Your task to perform on an android device: turn off notifications settings in the gmail app Image 0: 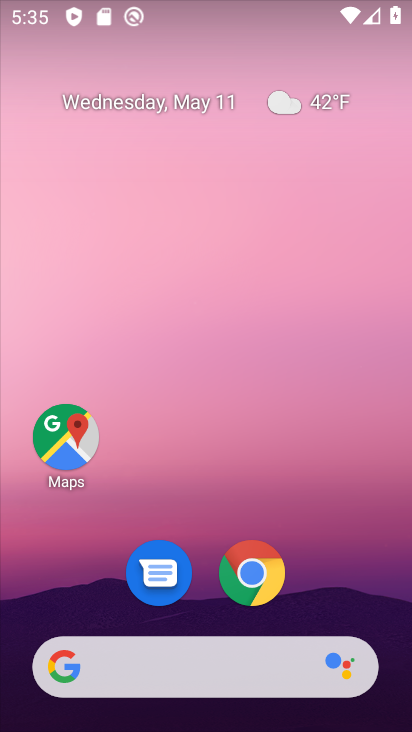
Step 0: drag from (319, 593) to (232, 151)
Your task to perform on an android device: turn off notifications settings in the gmail app Image 1: 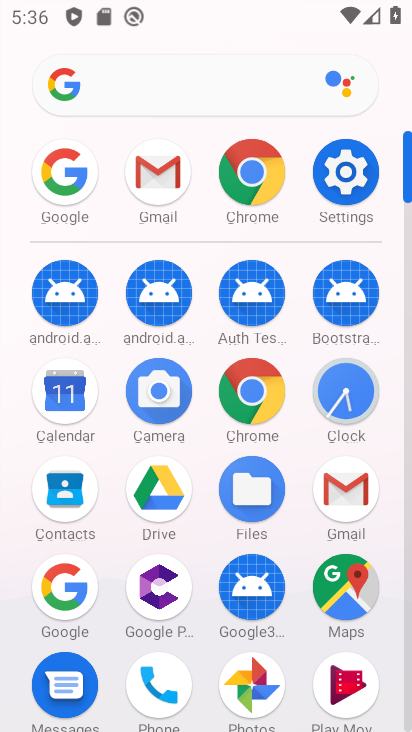
Step 1: click (332, 489)
Your task to perform on an android device: turn off notifications settings in the gmail app Image 2: 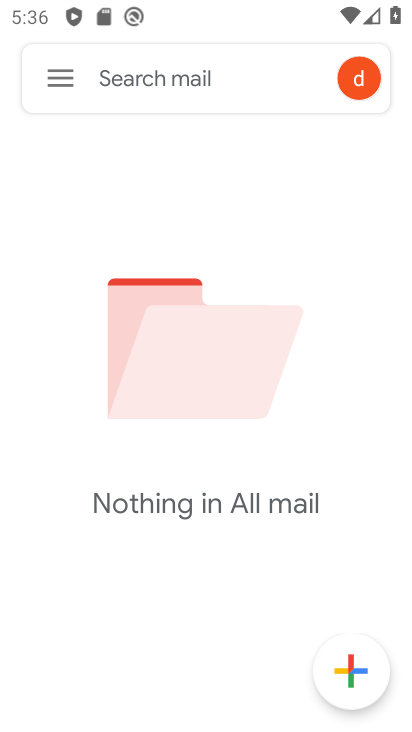
Step 2: click (55, 86)
Your task to perform on an android device: turn off notifications settings in the gmail app Image 3: 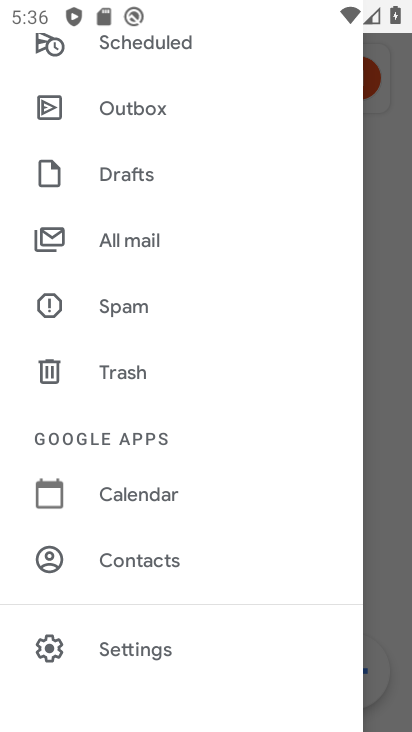
Step 3: click (147, 650)
Your task to perform on an android device: turn off notifications settings in the gmail app Image 4: 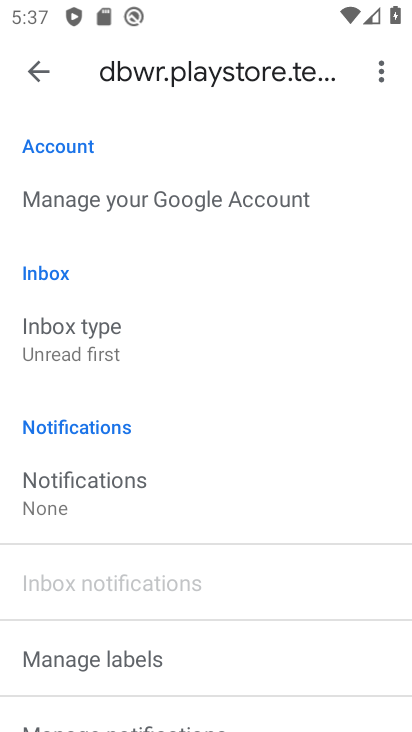
Step 4: drag from (274, 669) to (238, 458)
Your task to perform on an android device: turn off notifications settings in the gmail app Image 5: 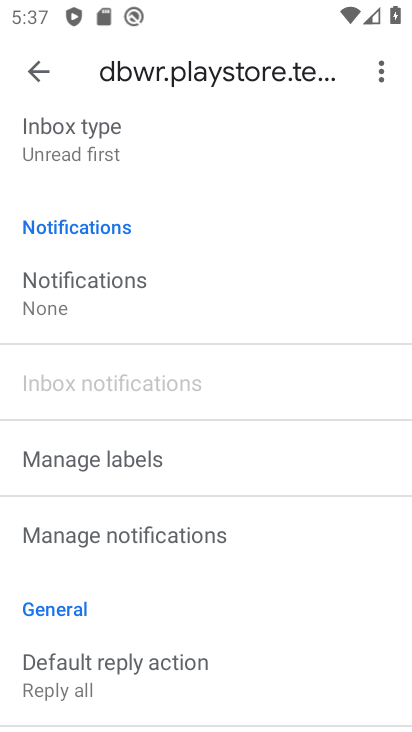
Step 5: click (112, 293)
Your task to perform on an android device: turn off notifications settings in the gmail app Image 6: 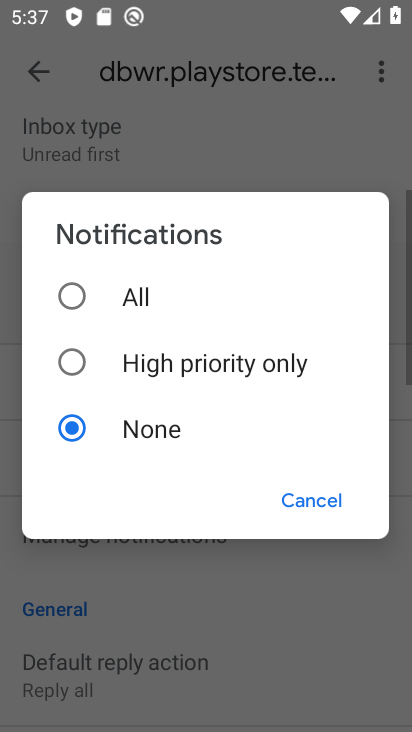
Step 6: click (135, 289)
Your task to perform on an android device: turn off notifications settings in the gmail app Image 7: 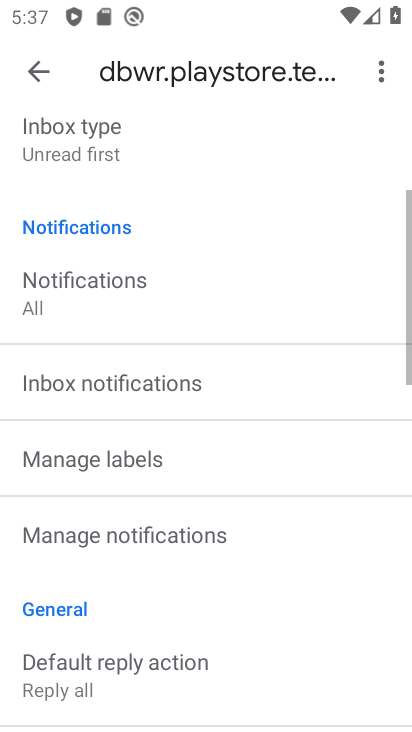
Step 7: click (138, 287)
Your task to perform on an android device: turn off notifications settings in the gmail app Image 8: 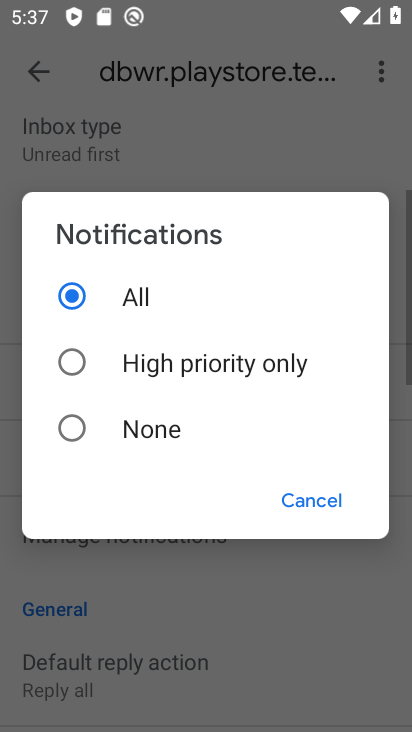
Step 8: click (138, 287)
Your task to perform on an android device: turn off notifications settings in the gmail app Image 9: 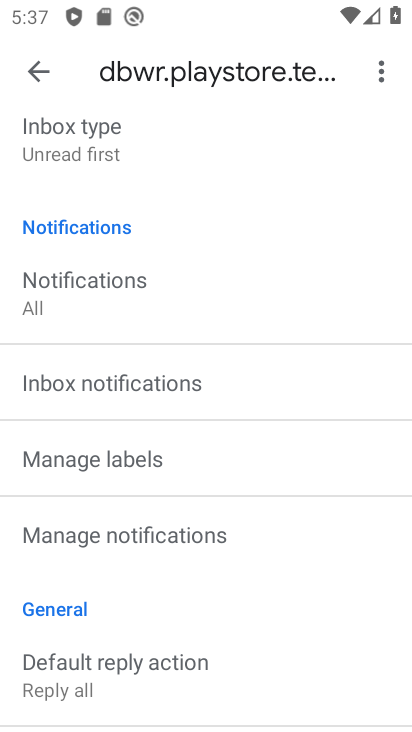
Step 9: click (128, 278)
Your task to perform on an android device: turn off notifications settings in the gmail app Image 10: 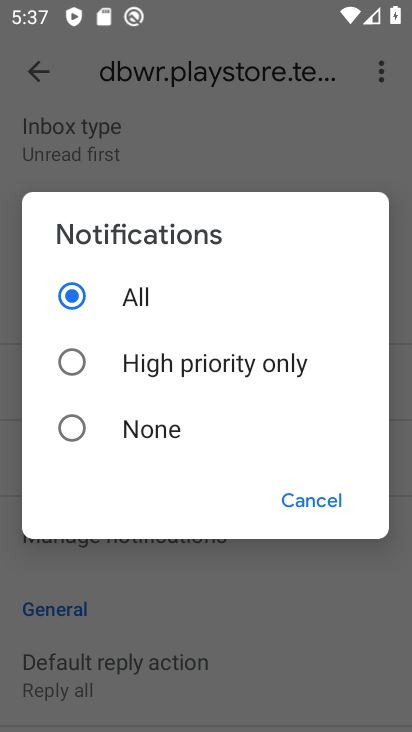
Step 10: click (130, 427)
Your task to perform on an android device: turn off notifications settings in the gmail app Image 11: 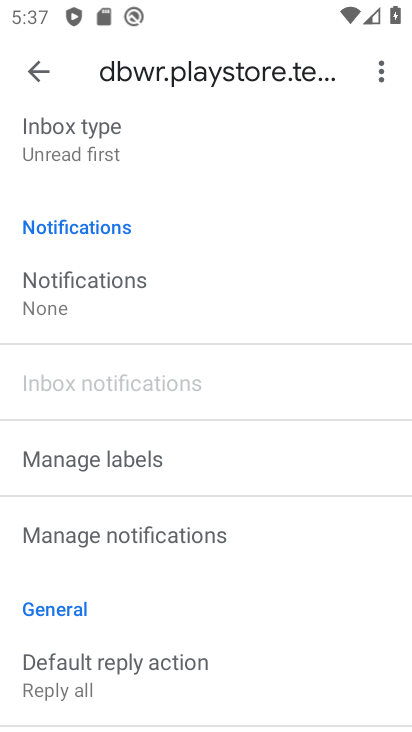
Step 11: task complete